Your task to perform on an android device: open the mobile data screen to see how much data has been used Image 0: 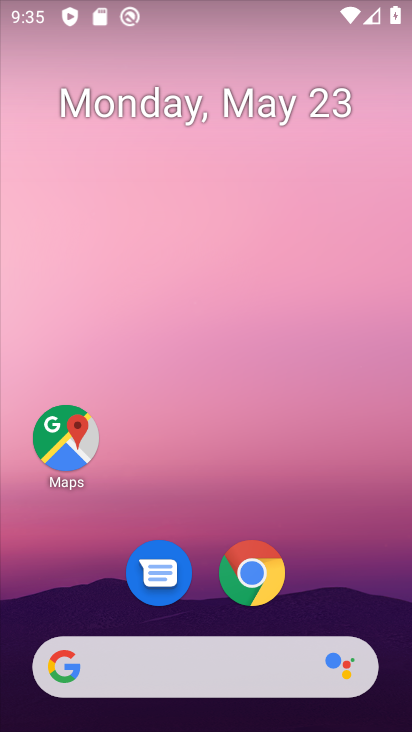
Step 0: drag from (219, 636) to (264, 140)
Your task to perform on an android device: open the mobile data screen to see how much data has been used Image 1: 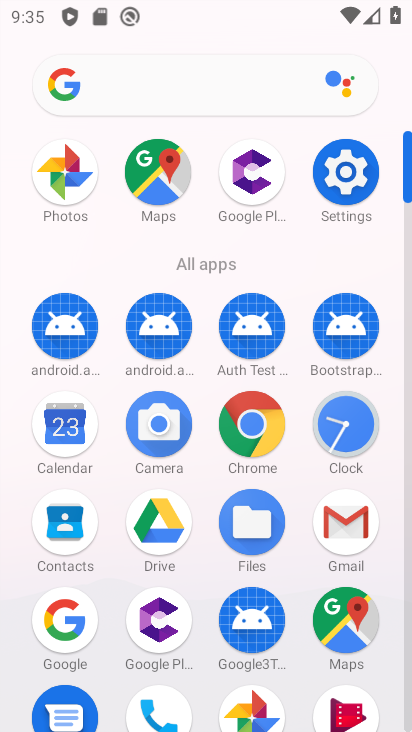
Step 1: click (350, 169)
Your task to perform on an android device: open the mobile data screen to see how much data has been used Image 2: 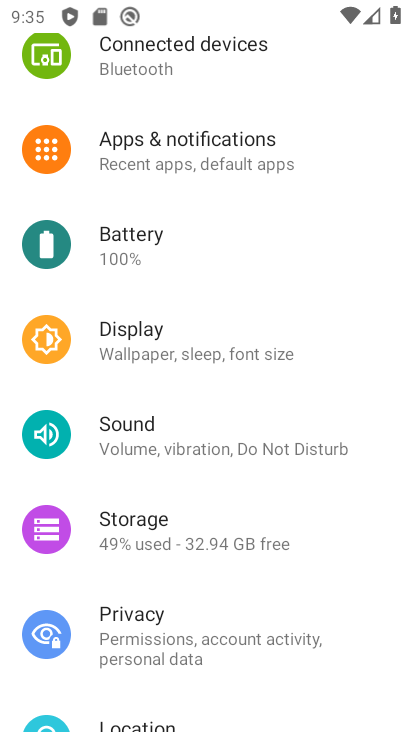
Step 2: drag from (180, 100) to (178, 464)
Your task to perform on an android device: open the mobile data screen to see how much data has been used Image 3: 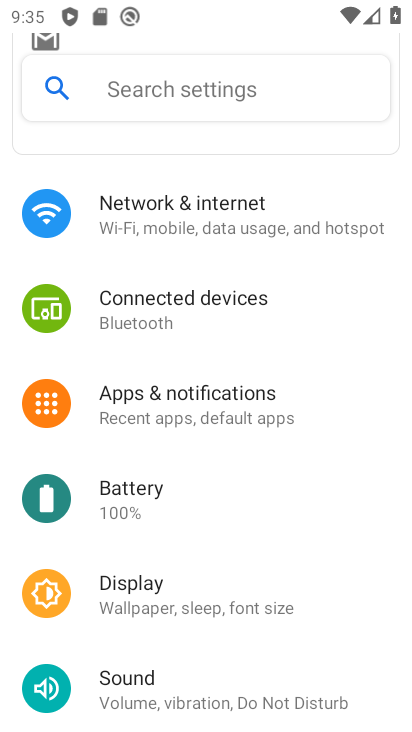
Step 3: click (202, 241)
Your task to perform on an android device: open the mobile data screen to see how much data has been used Image 4: 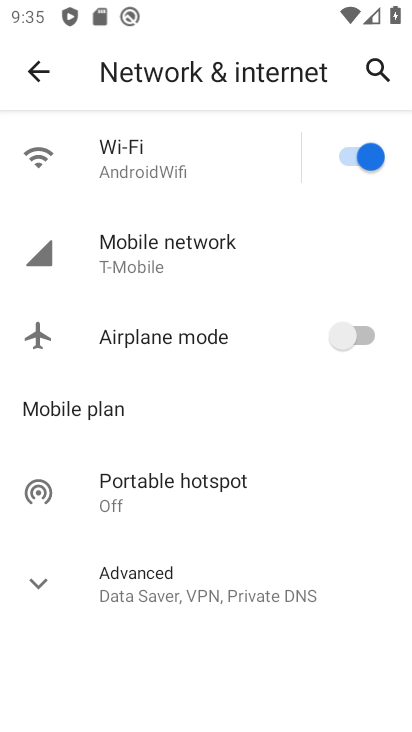
Step 4: click (193, 249)
Your task to perform on an android device: open the mobile data screen to see how much data has been used Image 5: 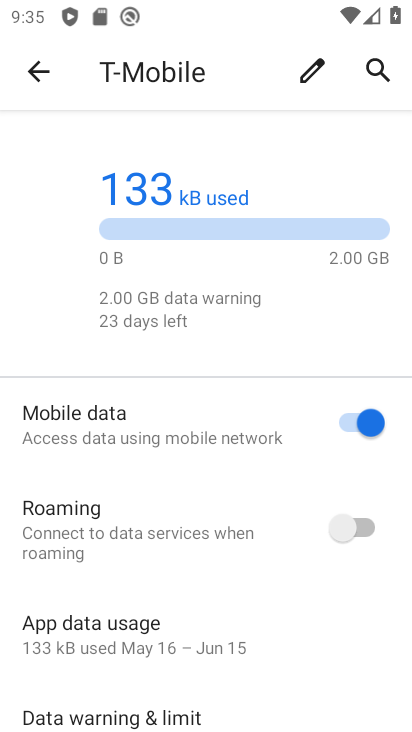
Step 5: task complete